Your task to perform on an android device: Open network settings Image 0: 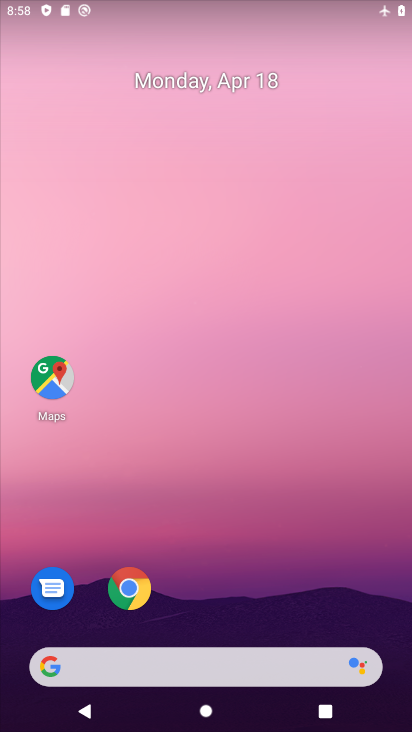
Step 0: drag from (273, 630) to (257, 249)
Your task to perform on an android device: Open network settings Image 1: 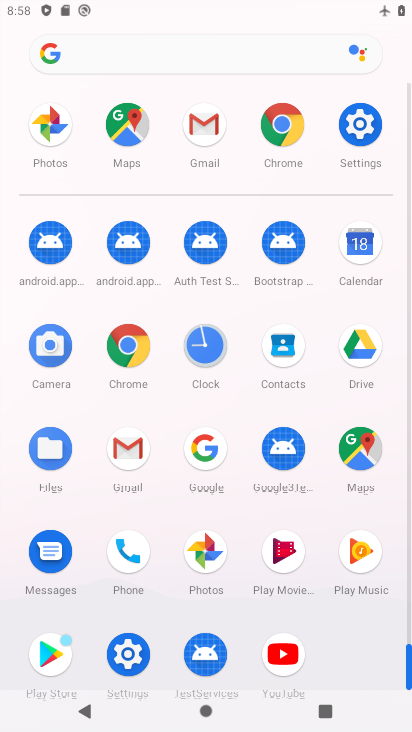
Step 1: click (355, 129)
Your task to perform on an android device: Open network settings Image 2: 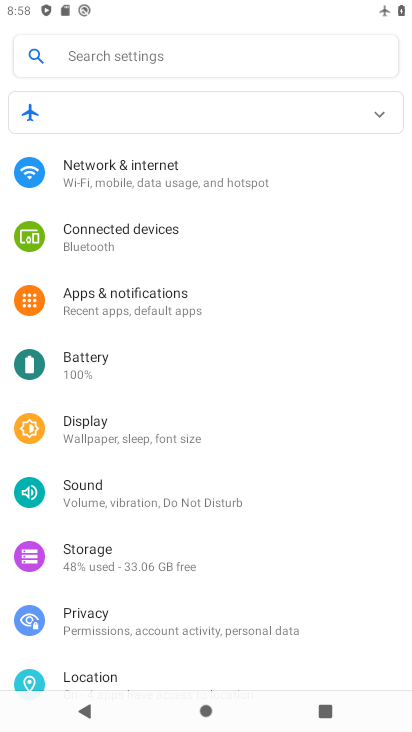
Step 2: click (209, 169)
Your task to perform on an android device: Open network settings Image 3: 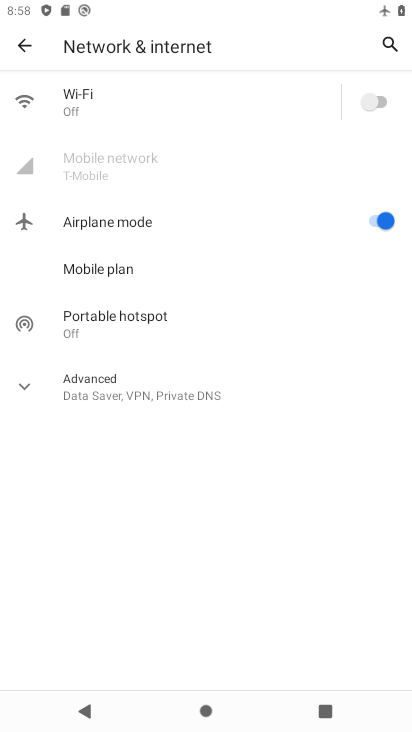
Step 3: click (153, 170)
Your task to perform on an android device: Open network settings Image 4: 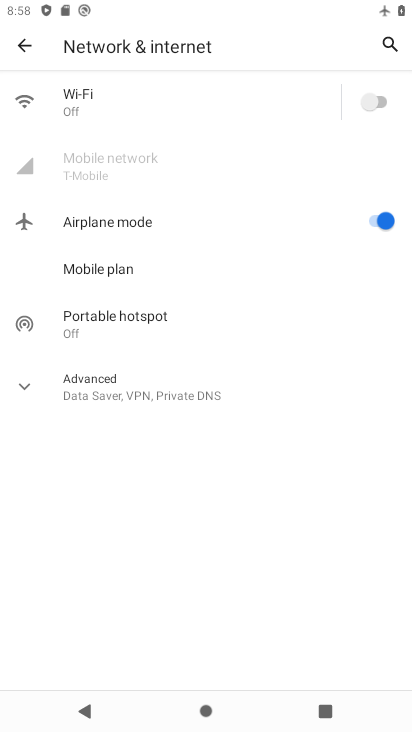
Step 4: click (153, 169)
Your task to perform on an android device: Open network settings Image 5: 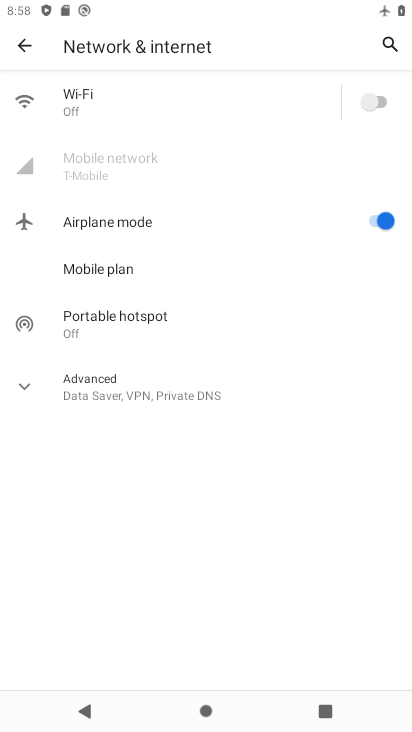
Step 5: click (153, 169)
Your task to perform on an android device: Open network settings Image 6: 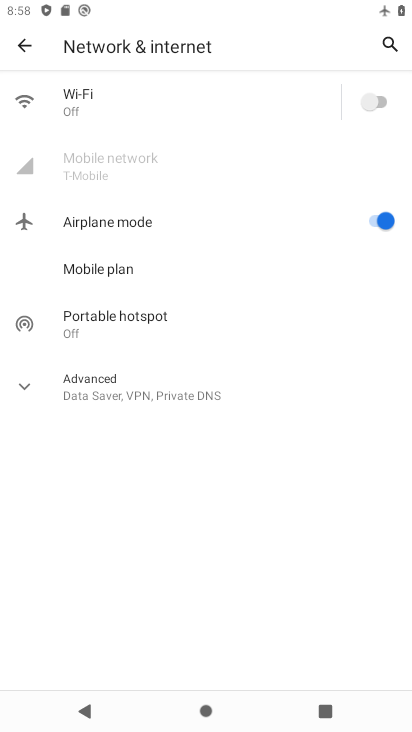
Step 6: click (153, 169)
Your task to perform on an android device: Open network settings Image 7: 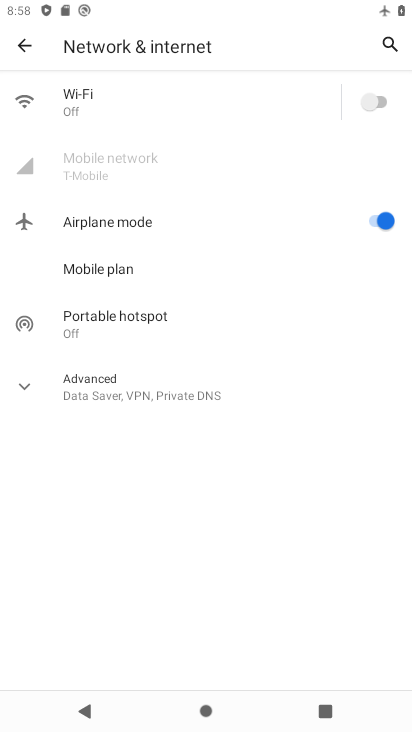
Step 7: task complete